Your task to perform on an android device: show emergency info Image 0: 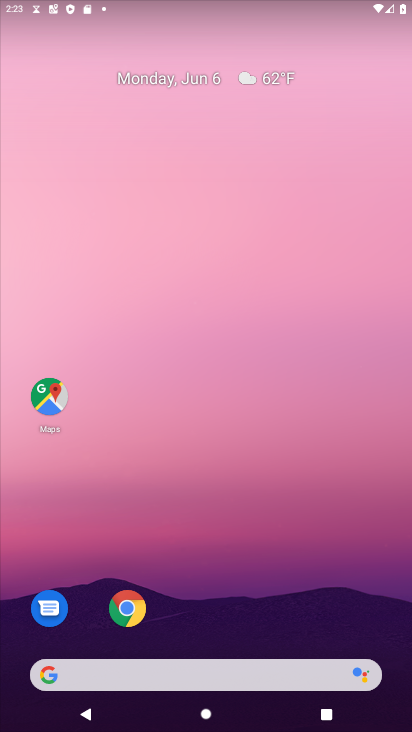
Step 0: drag from (280, 559) to (210, 6)
Your task to perform on an android device: show emergency info Image 1: 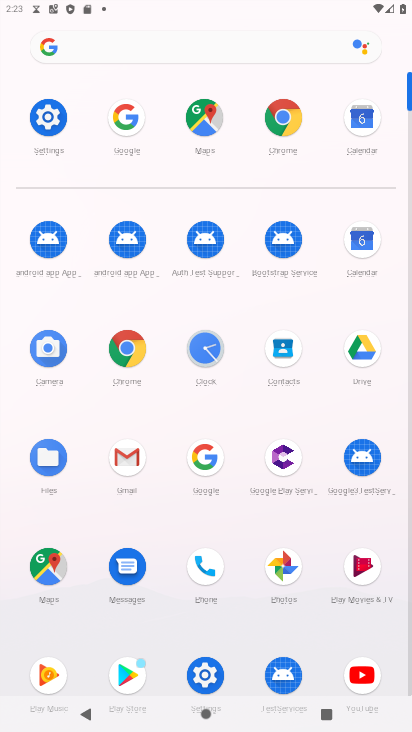
Step 1: click (44, 110)
Your task to perform on an android device: show emergency info Image 2: 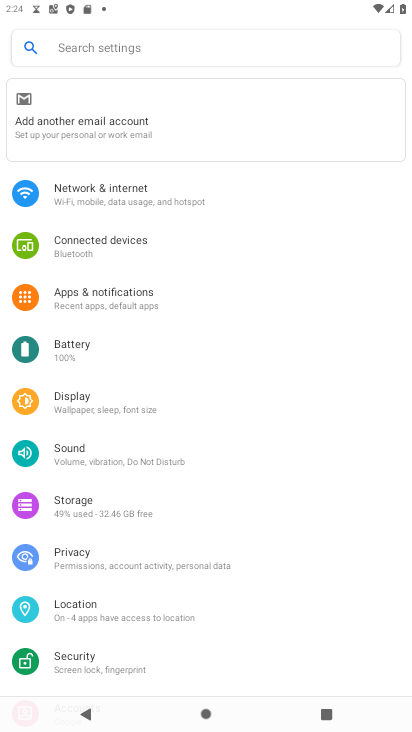
Step 2: drag from (165, 616) to (197, 195)
Your task to perform on an android device: show emergency info Image 3: 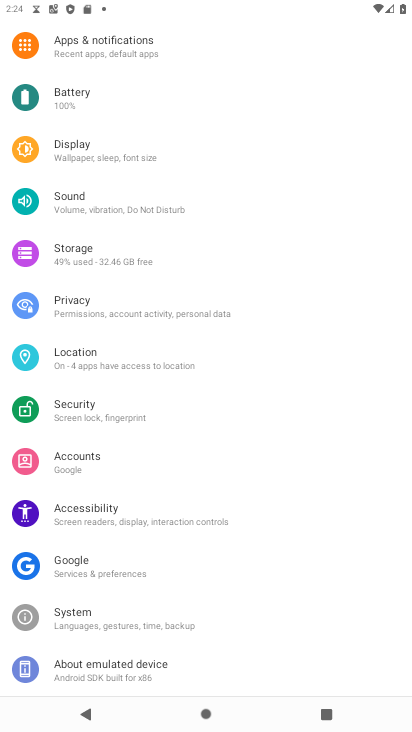
Step 3: drag from (123, 555) to (215, 37)
Your task to perform on an android device: show emergency info Image 4: 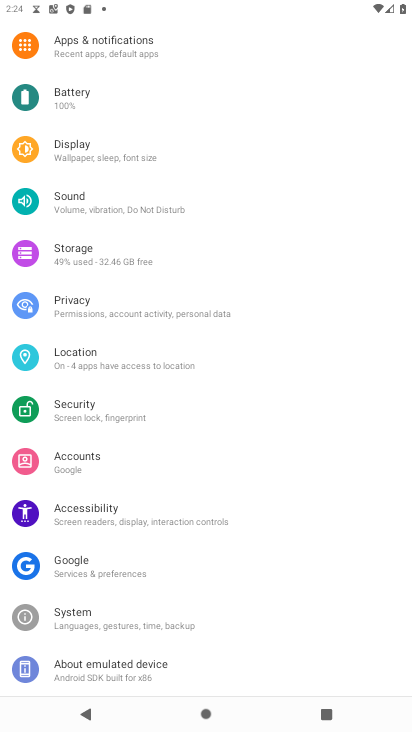
Step 4: drag from (129, 618) to (173, 229)
Your task to perform on an android device: show emergency info Image 5: 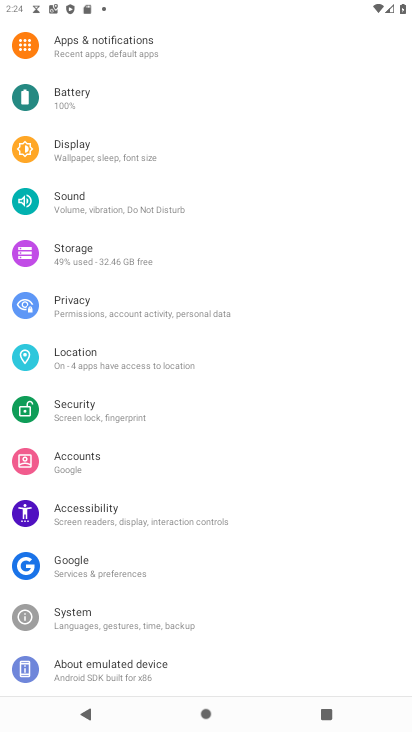
Step 5: click (119, 677)
Your task to perform on an android device: show emergency info Image 6: 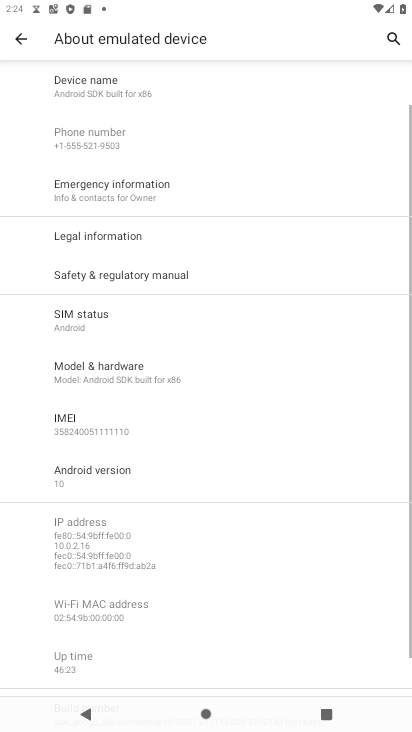
Step 6: click (103, 187)
Your task to perform on an android device: show emergency info Image 7: 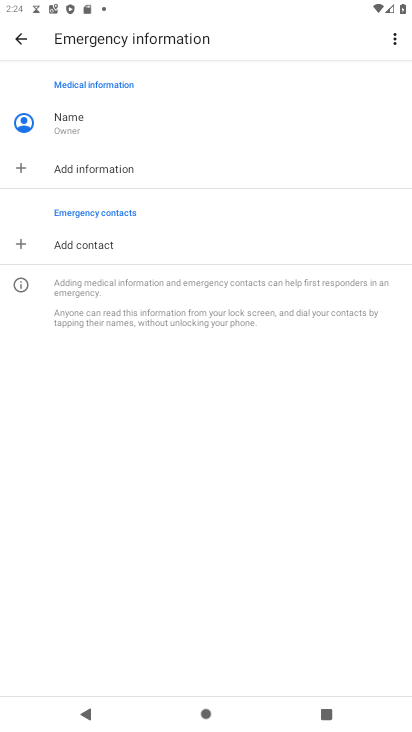
Step 7: task complete